Your task to perform on an android device: Open Google Chrome Image 0: 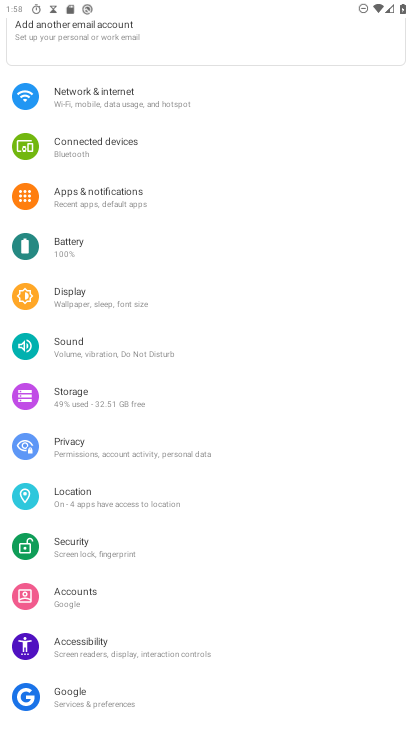
Step 0: press home button
Your task to perform on an android device: Open Google Chrome Image 1: 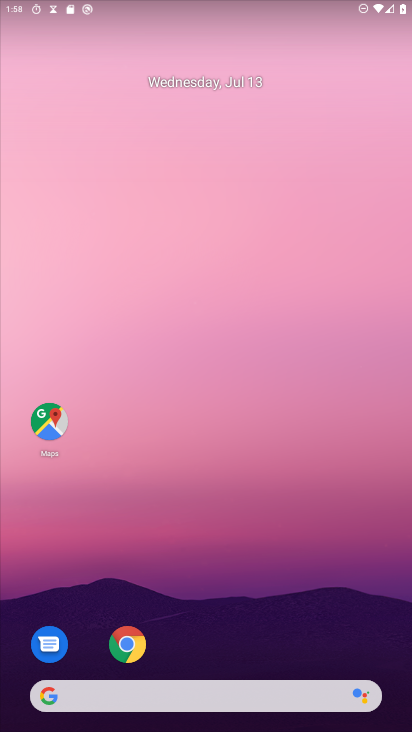
Step 1: click (129, 639)
Your task to perform on an android device: Open Google Chrome Image 2: 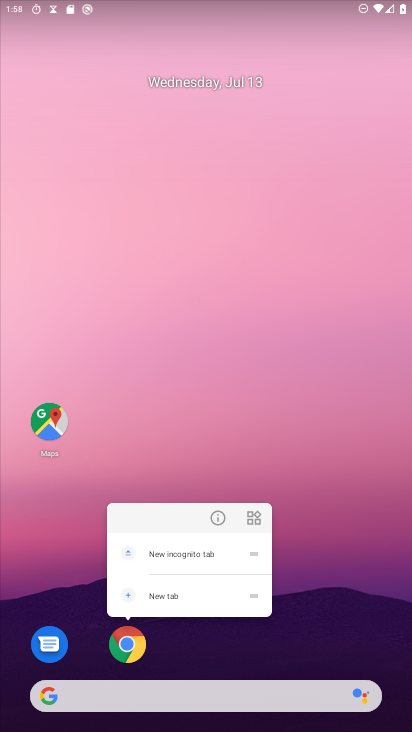
Step 2: click (136, 634)
Your task to perform on an android device: Open Google Chrome Image 3: 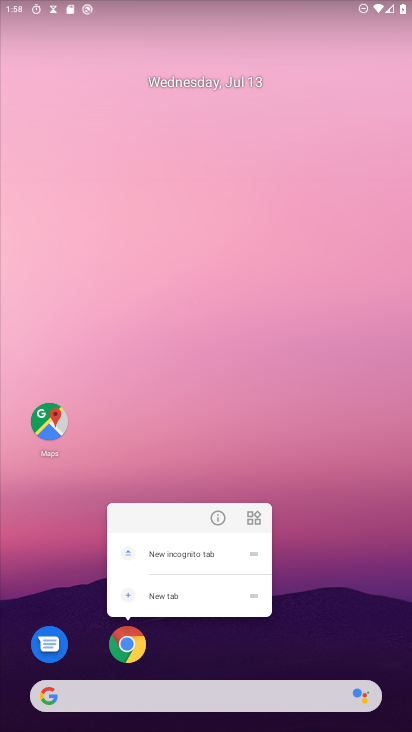
Step 3: click (134, 637)
Your task to perform on an android device: Open Google Chrome Image 4: 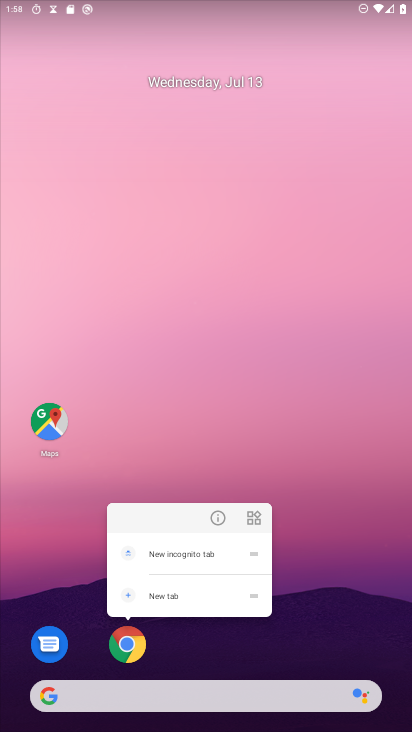
Step 4: click (128, 638)
Your task to perform on an android device: Open Google Chrome Image 5: 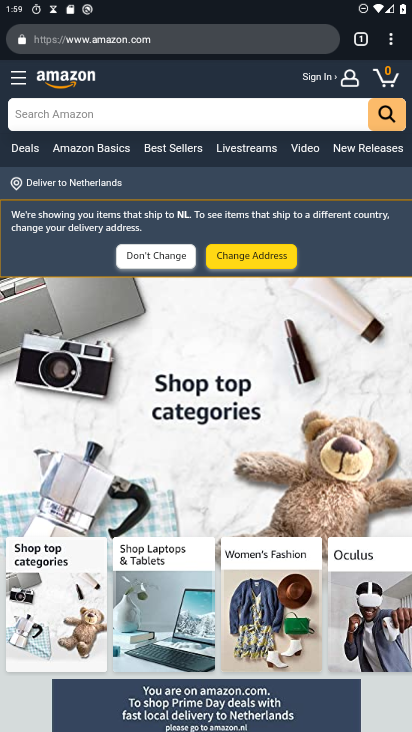
Step 5: task complete